Your task to perform on an android device: Open notification settings Image 0: 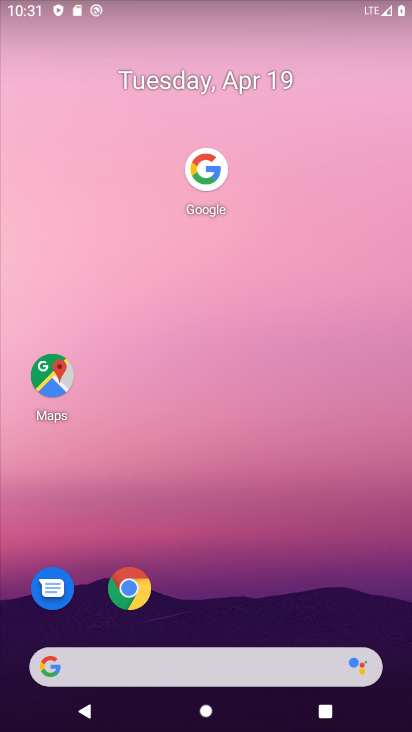
Step 0: drag from (264, 451) to (255, 36)
Your task to perform on an android device: Open notification settings Image 1: 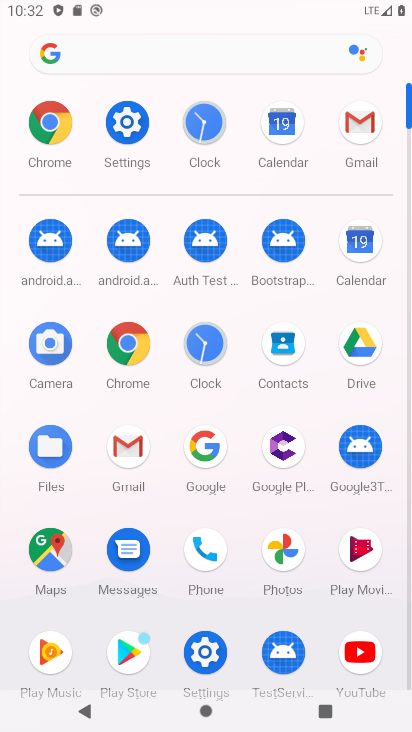
Step 1: click (130, 125)
Your task to perform on an android device: Open notification settings Image 2: 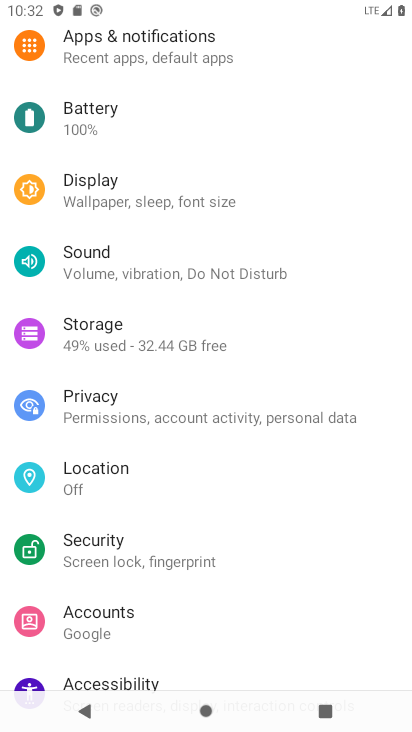
Step 2: click (146, 36)
Your task to perform on an android device: Open notification settings Image 3: 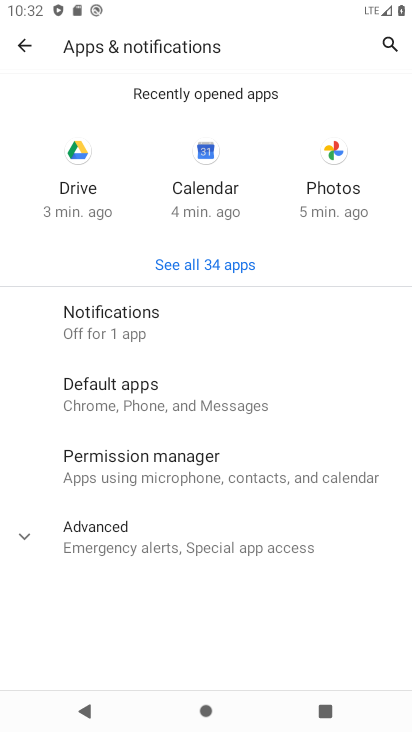
Step 3: click (134, 315)
Your task to perform on an android device: Open notification settings Image 4: 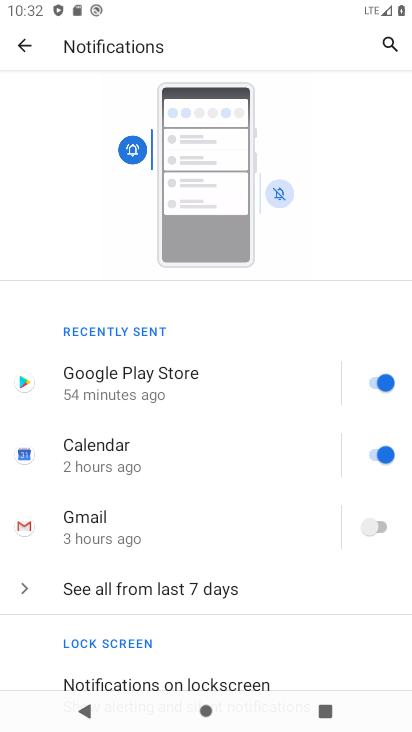
Step 4: task complete